Your task to perform on an android device: open app "Messenger Lite" (install if not already installed) Image 0: 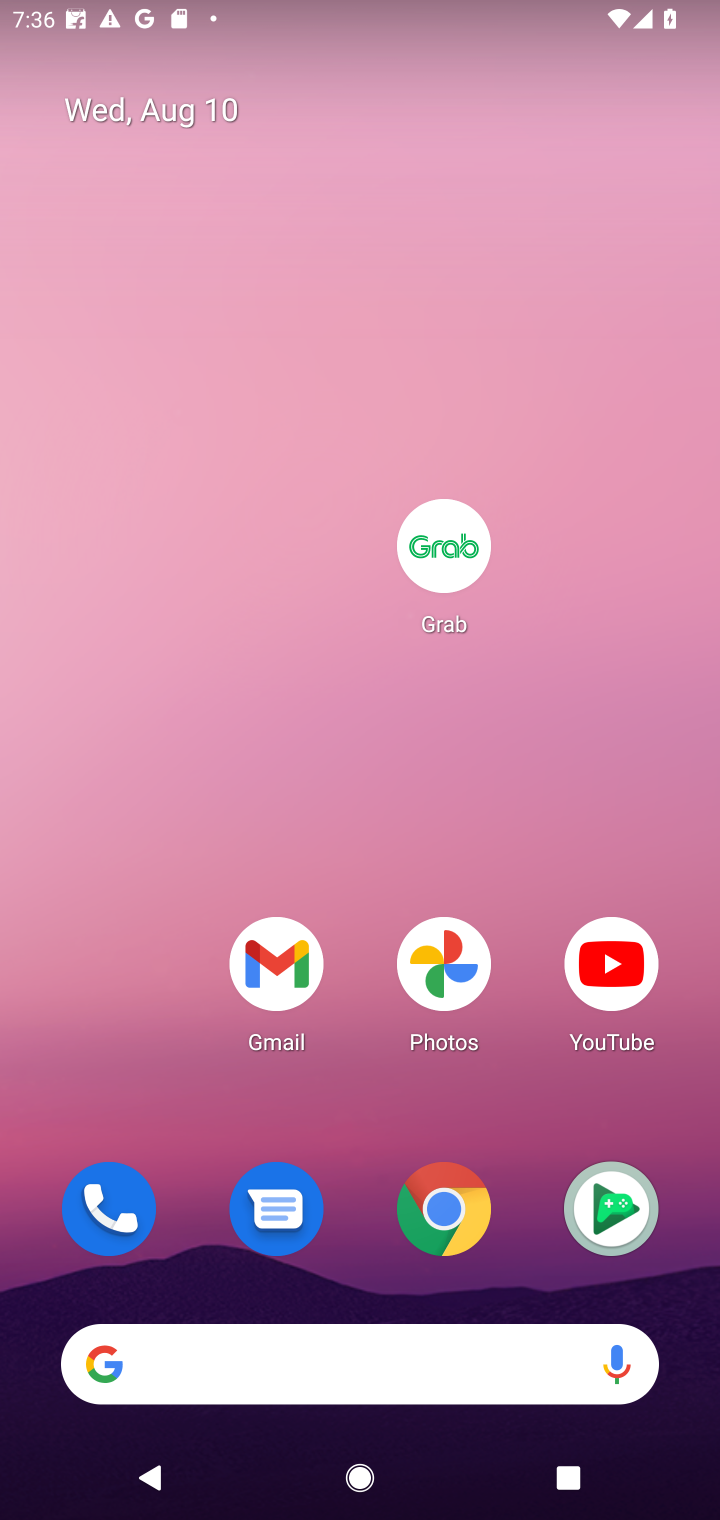
Step 0: click (352, 1298)
Your task to perform on an android device: open app "Messenger Lite" (install if not already installed) Image 1: 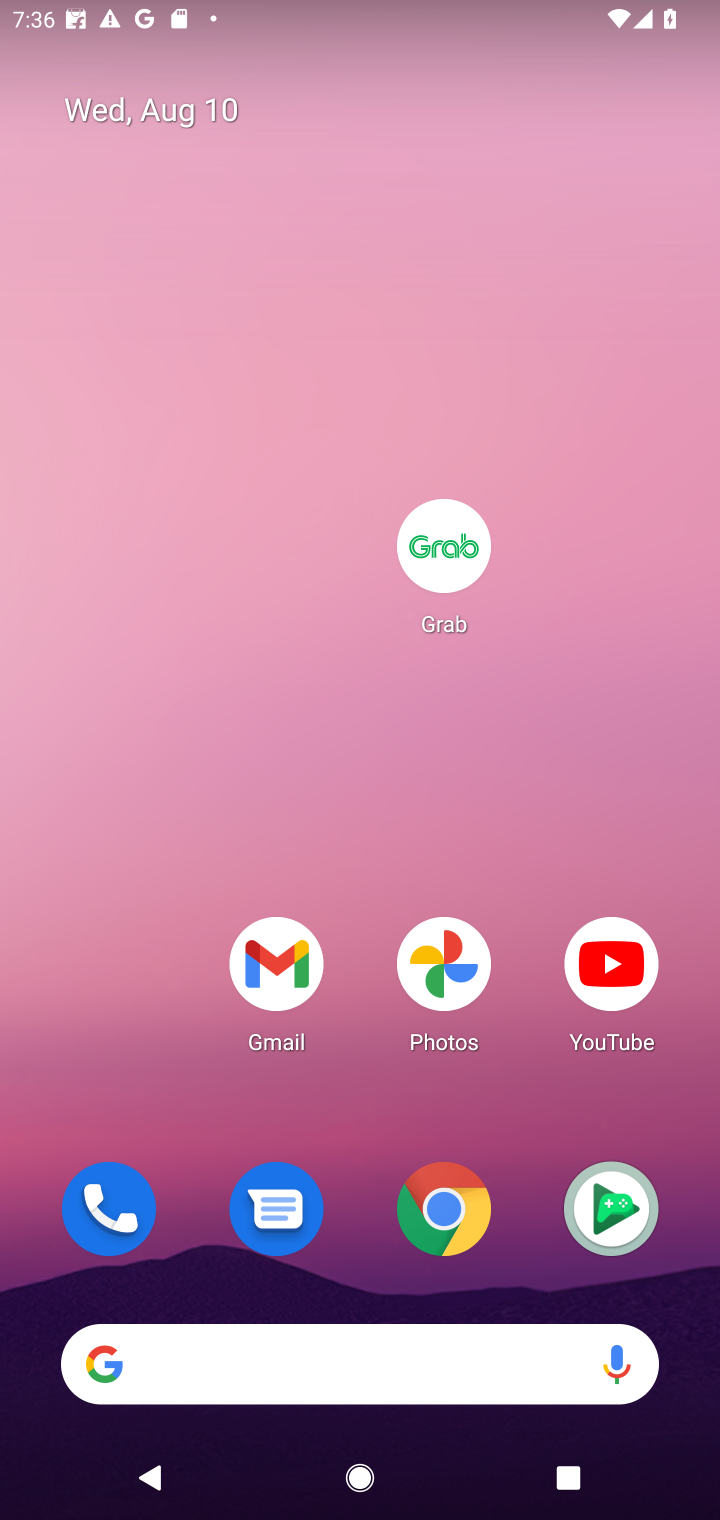
Step 1: drag from (352, 1185) to (313, 89)
Your task to perform on an android device: open app "Messenger Lite" (install if not already installed) Image 2: 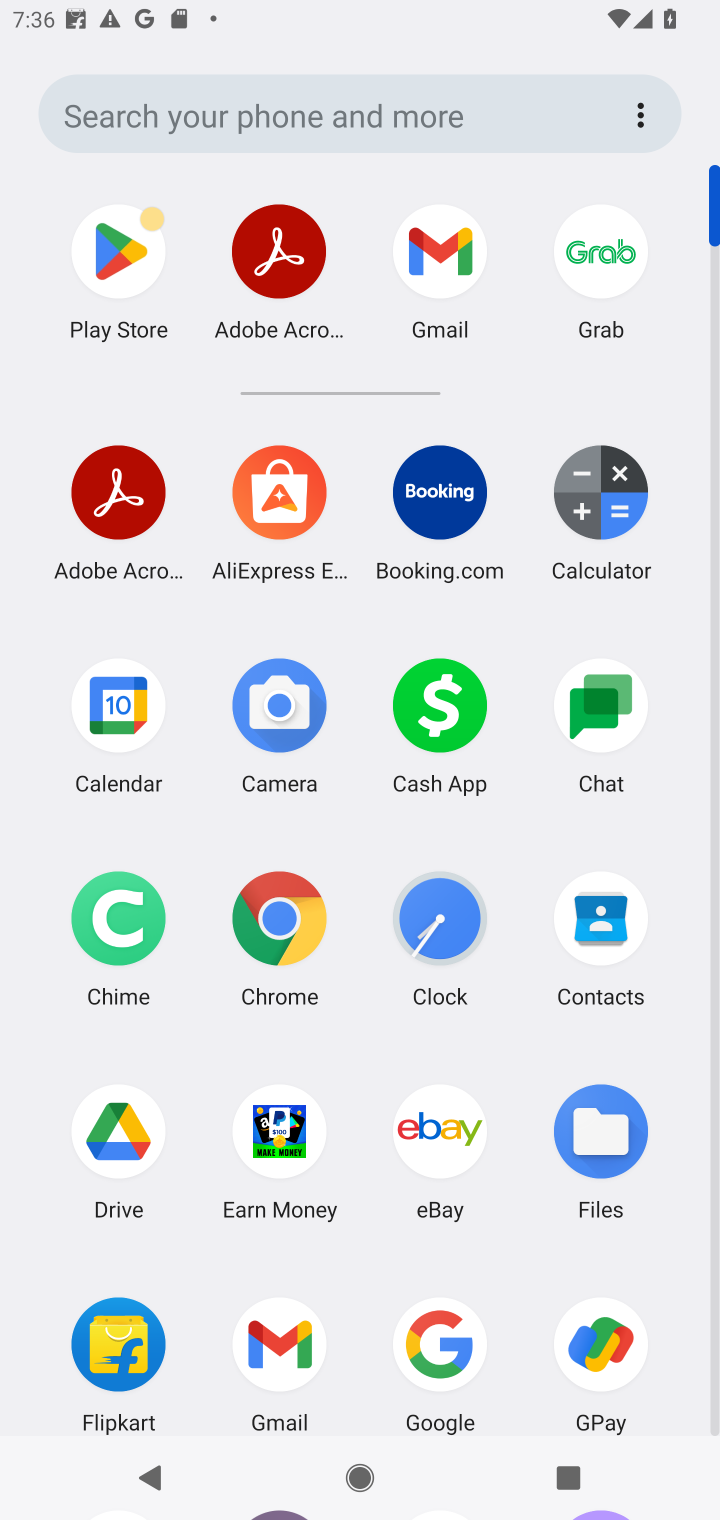
Step 2: click (125, 254)
Your task to perform on an android device: open app "Messenger Lite" (install if not already installed) Image 3: 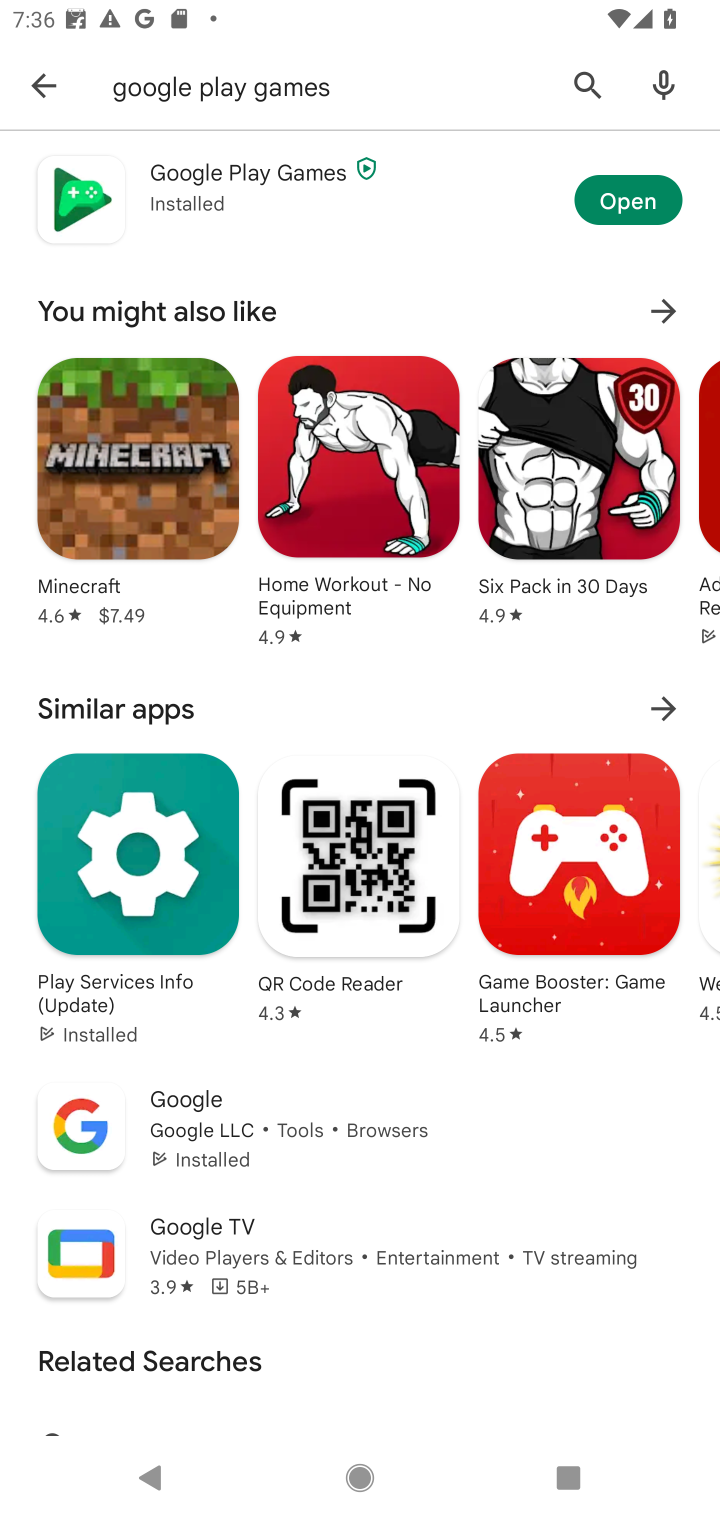
Step 3: click (582, 106)
Your task to perform on an android device: open app "Messenger Lite" (install if not already installed) Image 4: 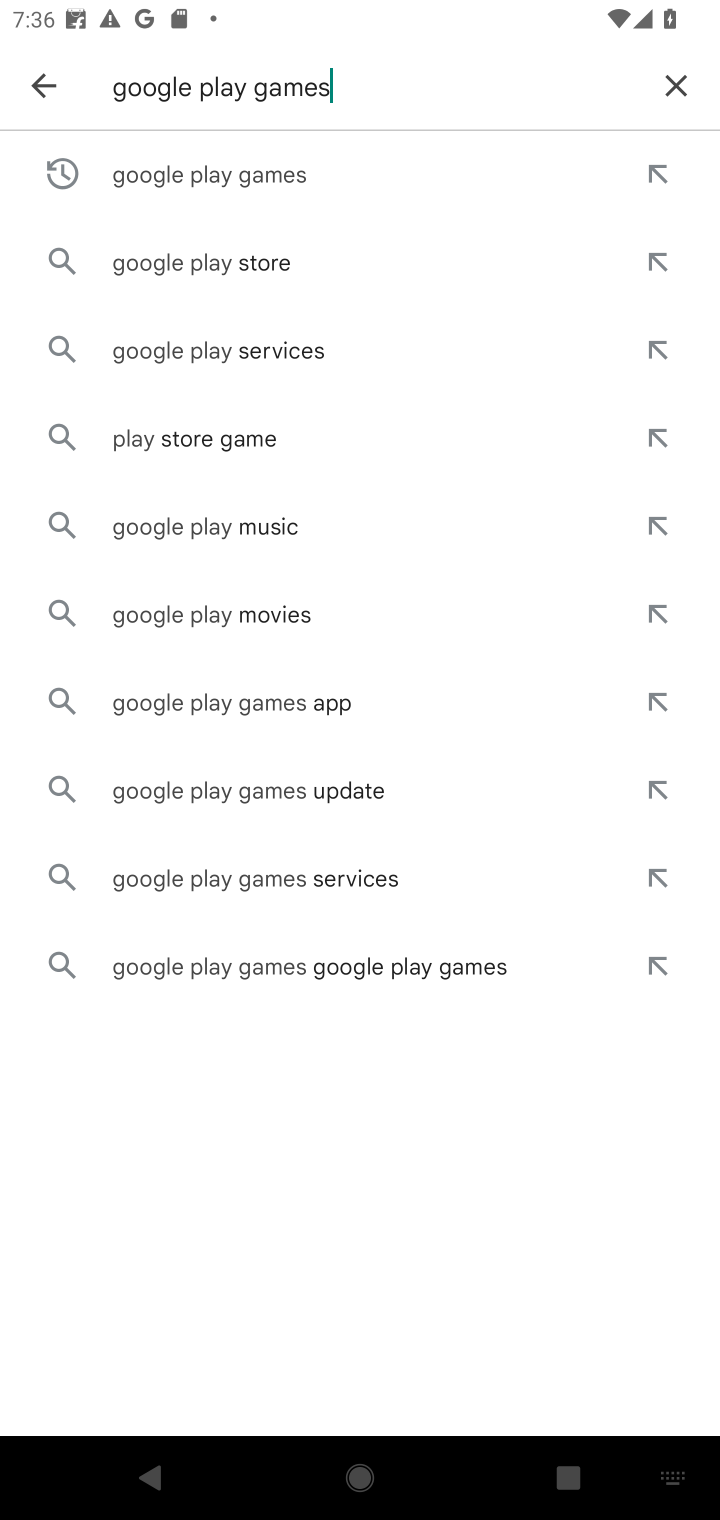
Step 4: click (662, 94)
Your task to perform on an android device: open app "Messenger Lite" (install if not already installed) Image 5: 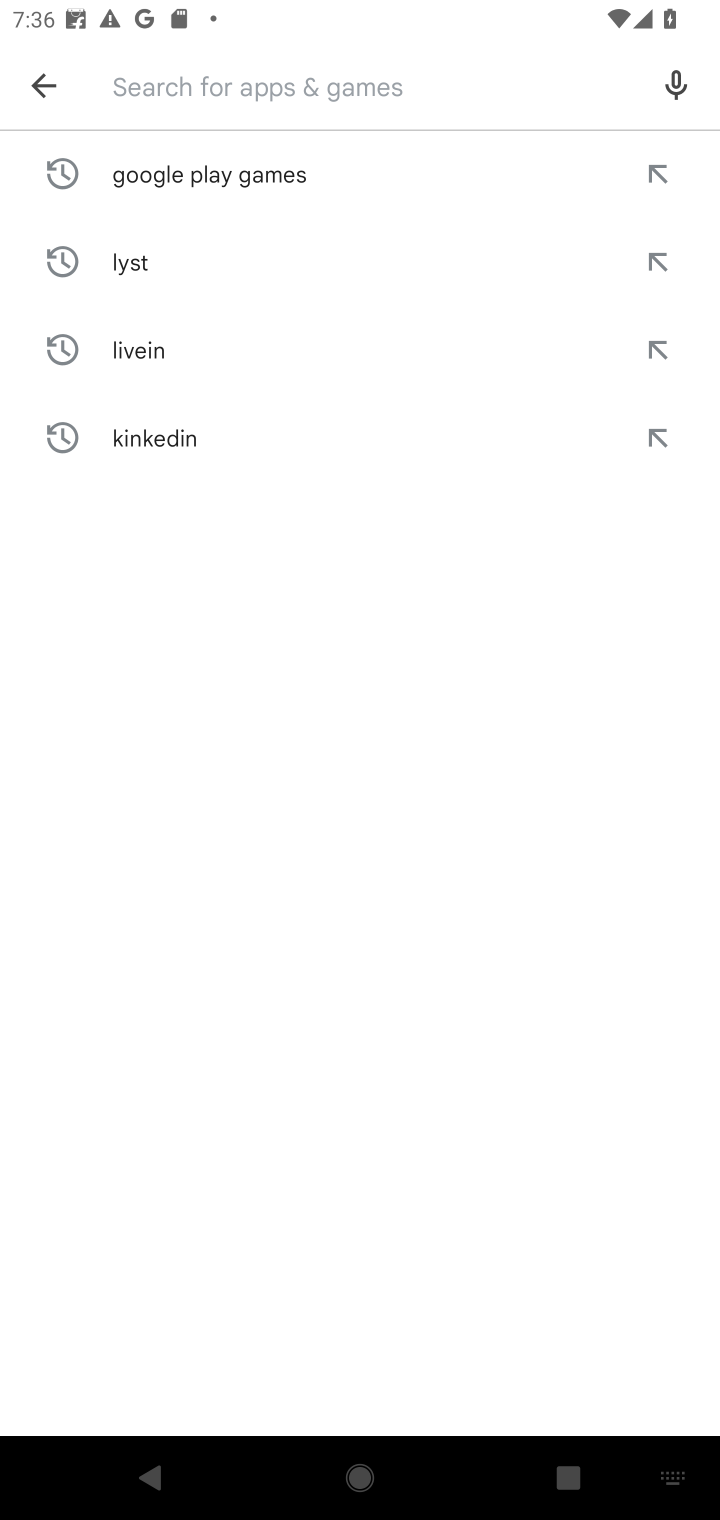
Step 5: type "messanger"
Your task to perform on an android device: open app "Messenger Lite" (install if not already installed) Image 6: 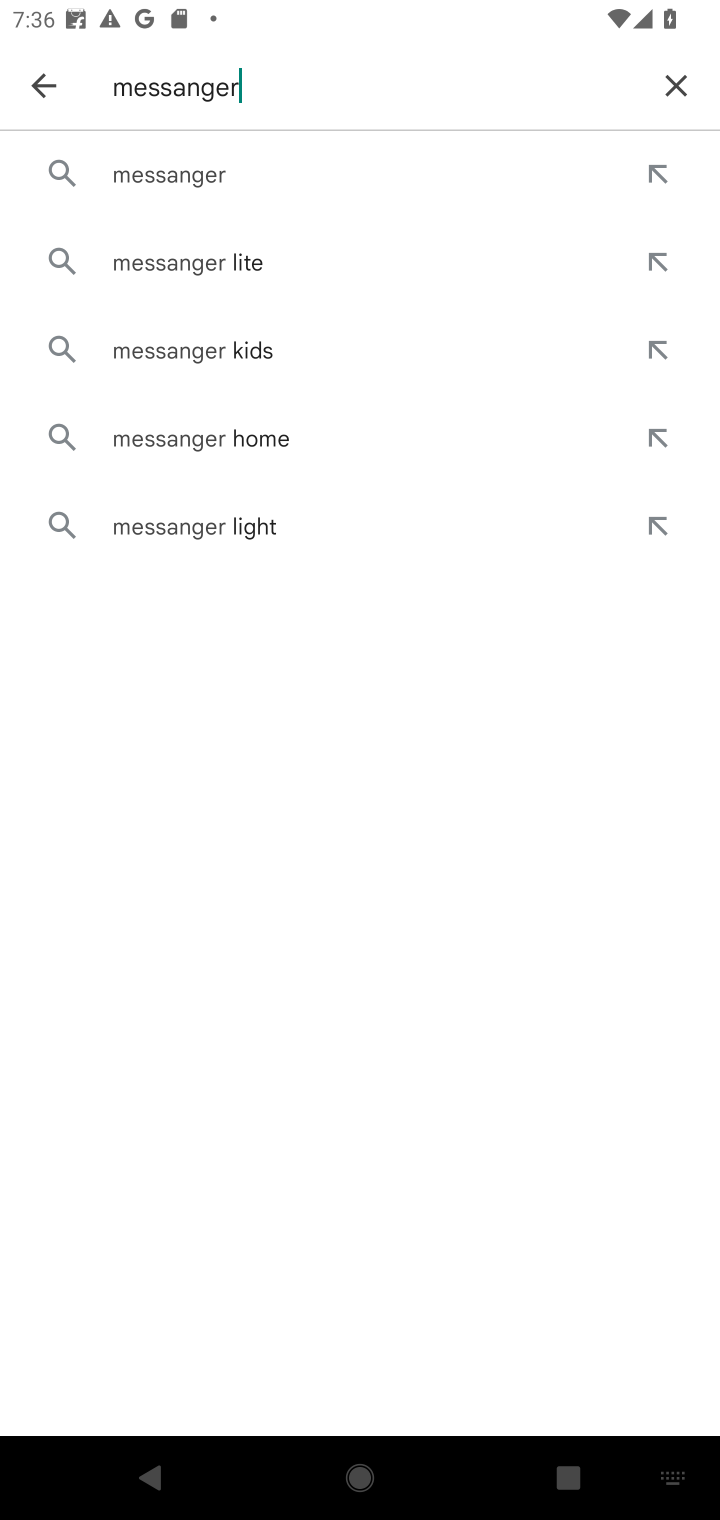
Step 6: click (323, 180)
Your task to perform on an android device: open app "Messenger Lite" (install if not already installed) Image 7: 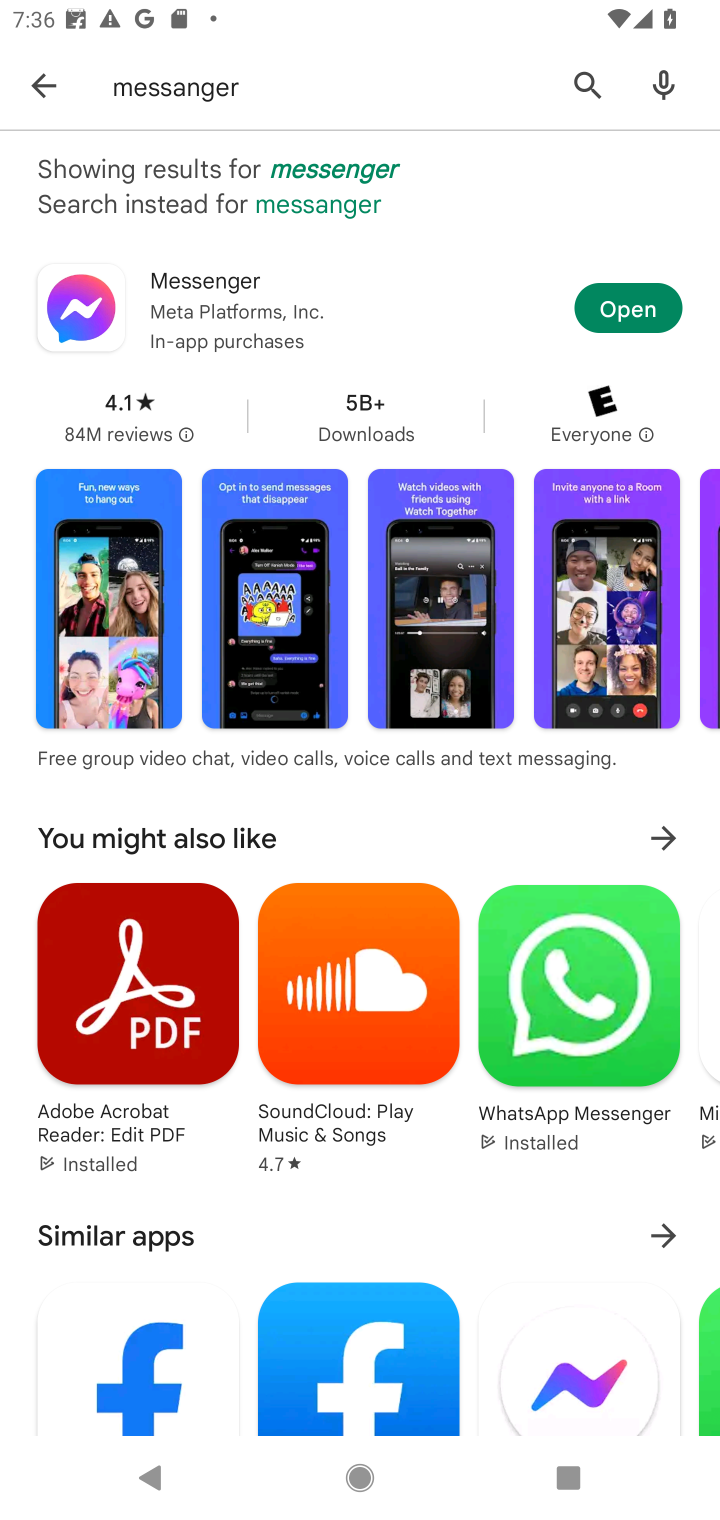
Step 7: click (600, 274)
Your task to perform on an android device: open app "Messenger Lite" (install if not already installed) Image 8: 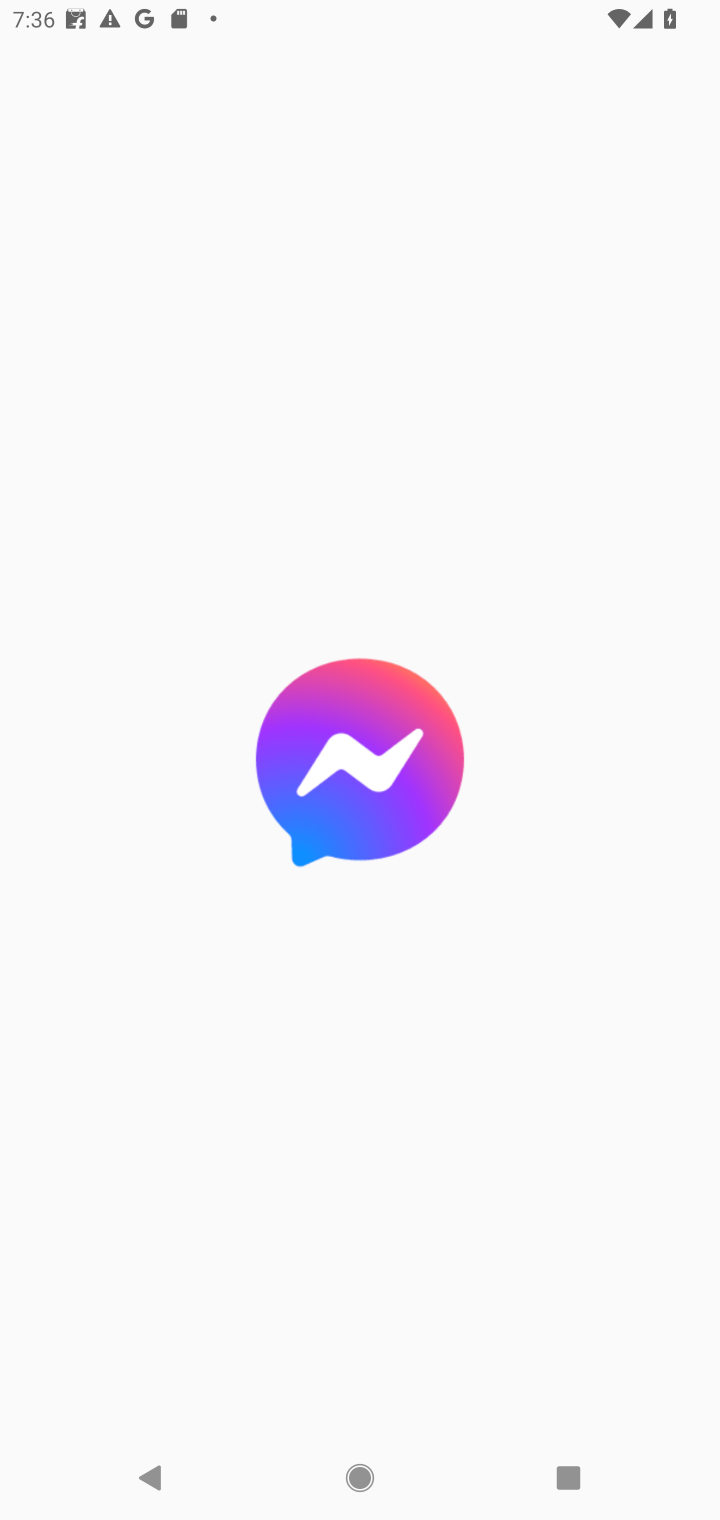
Step 8: task complete